Your task to perform on an android device: Open the phone app and click the voicemail tab. Image 0: 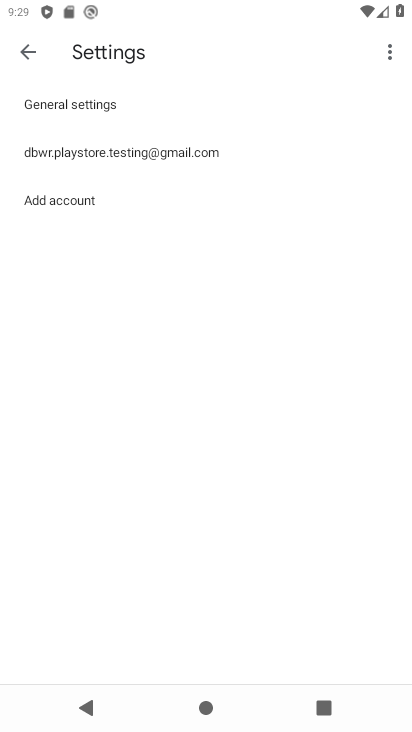
Step 0: press home button
Your task to perform on an android device: Open the phone app and click the voicemail tab. Image 1: 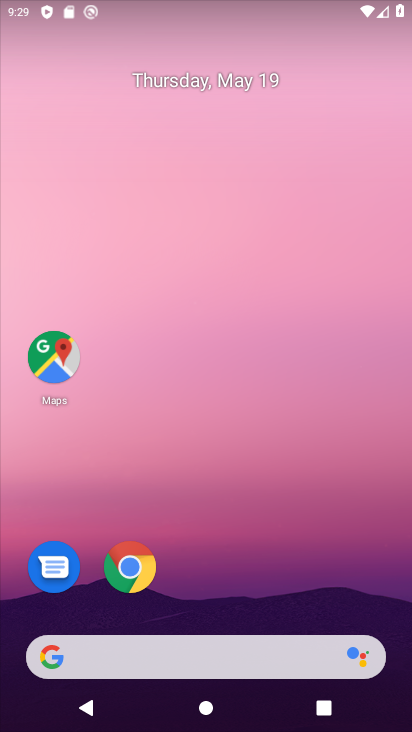
Step 1: drag from (199, 618) to (186, 123)
Your task to perform on an android device: Open the phone app and click the voicemail tab. Image 2: 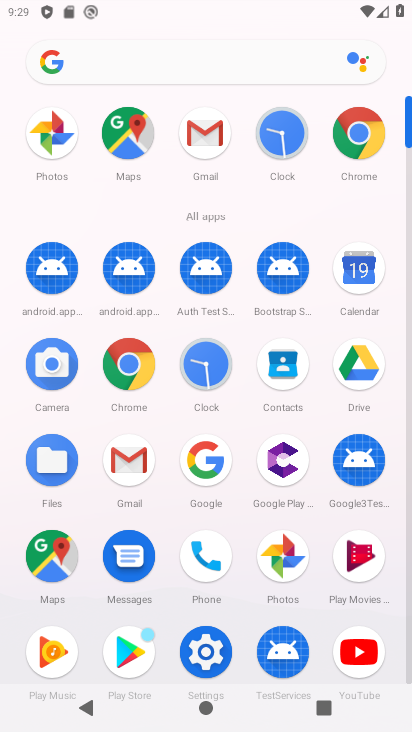
Step 2: click (202, 553)
Your task to perform on an android device: Open the phone app and click the voicemail tab. Image 3: 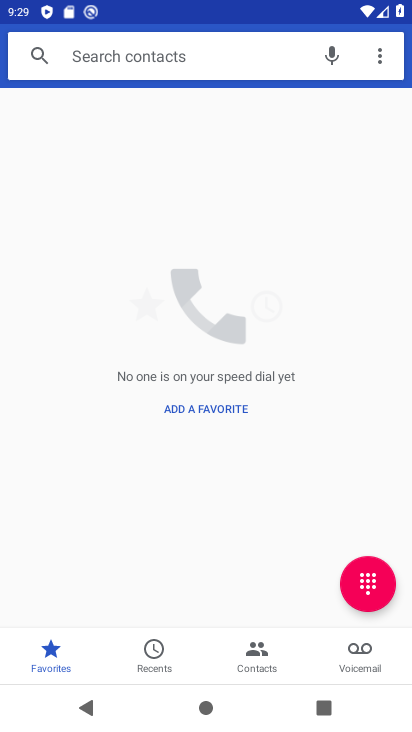
Step 3: click (358, 651)
Your task to perform on an android device: Open the phone app and click the voicemail tab. Image 4: 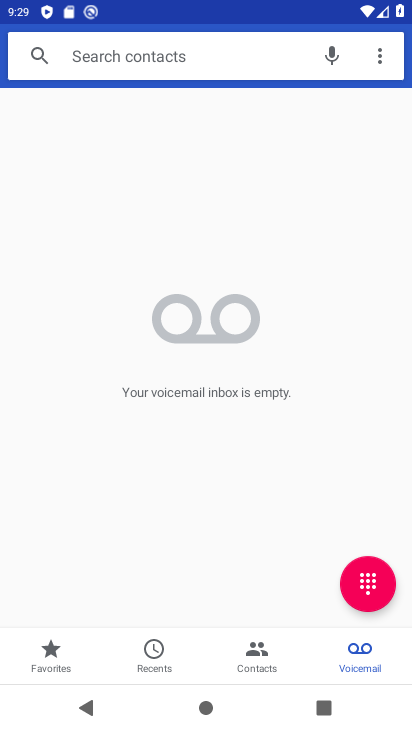
Step 4: task complete